Your task to perform on an android device: Open Google Maps and go to "Timeline" Image 0: 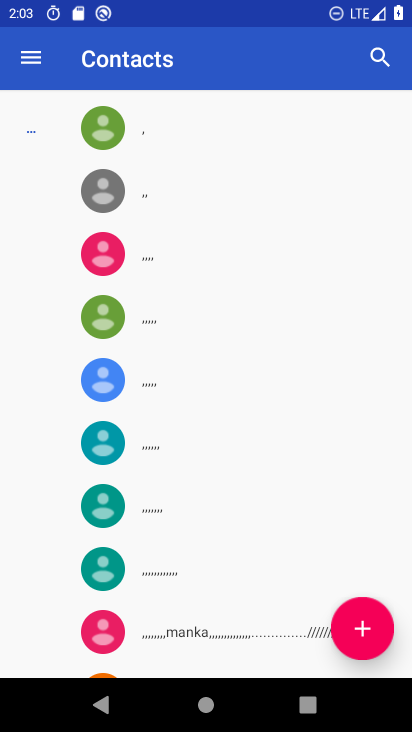
Step 0: press home button
Your task to perform on an android device: Open Google Maps and go to "Timeline" Image 1: 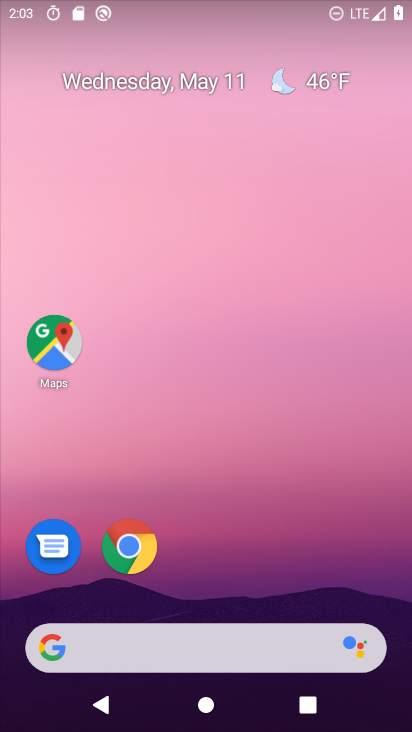
Step 1: drag from (228, 675) to (235, 263)
Your task to perform on an android device: Open Google Maps and go to "Timeline" Image 2: 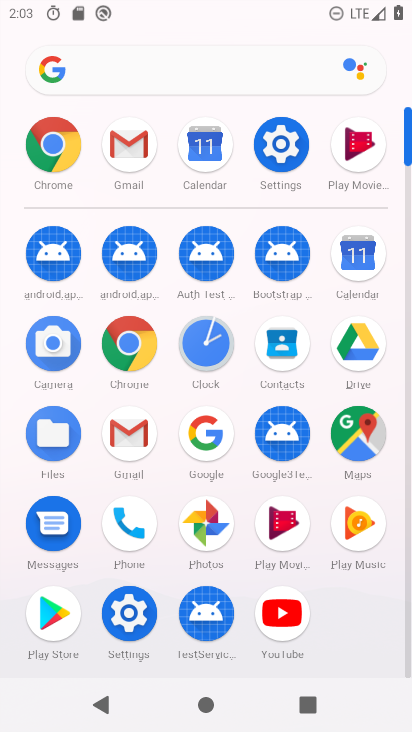
Step 2: click (366, 431)
Your task to perform on an android device: Open Google Maps and go to "Timeline" Image 3: 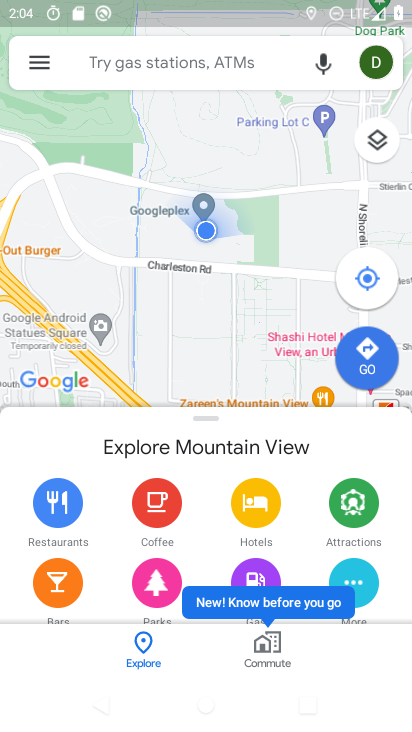
Step 3: click (37, 68)
Your task to perform on an android device: Open Google Maps and go to "Timeline" Image 4: 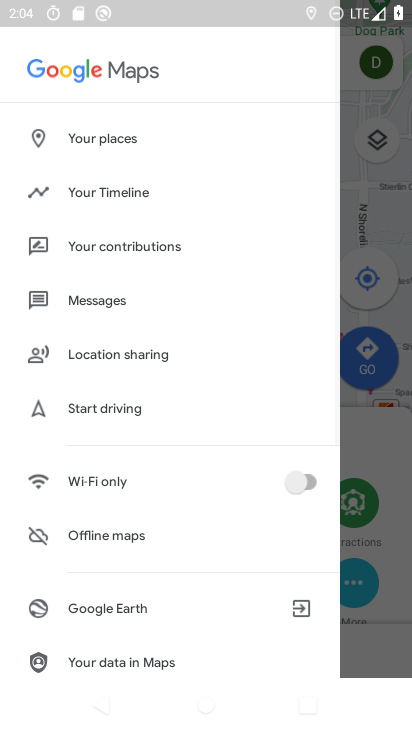
Step 4: click (87, 199)
Your task to perform on an android device: Open Google Maps and go to "Timeline" Image 5: 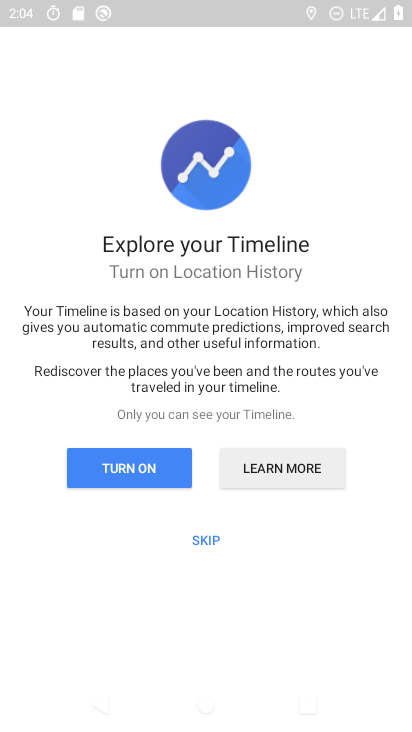
Step 5: click (205, 536)
Your task to perform on an android device: Open Google Maps and go to "Timeline" Image 6: 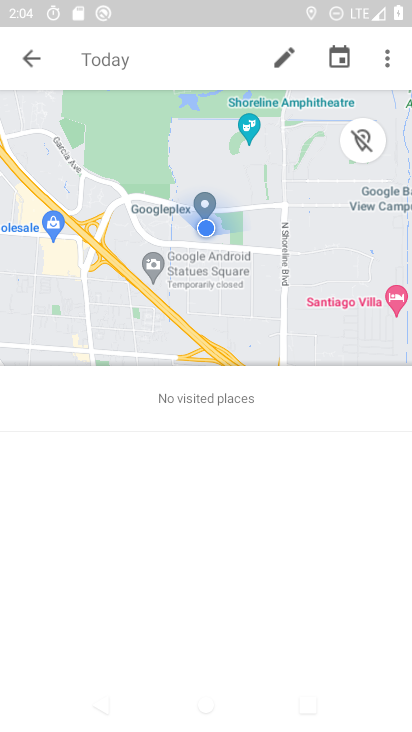
Step 6: task complete